Your task to perform on an android device: empty trash in google photos Image 0: 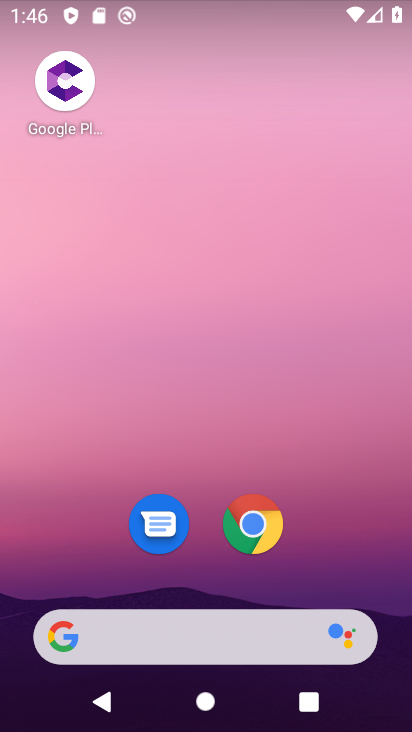
Step 0: drag from (334, 549) to (270, 15)
Your task to perform on an android device: empty trash in google photos Image 1: 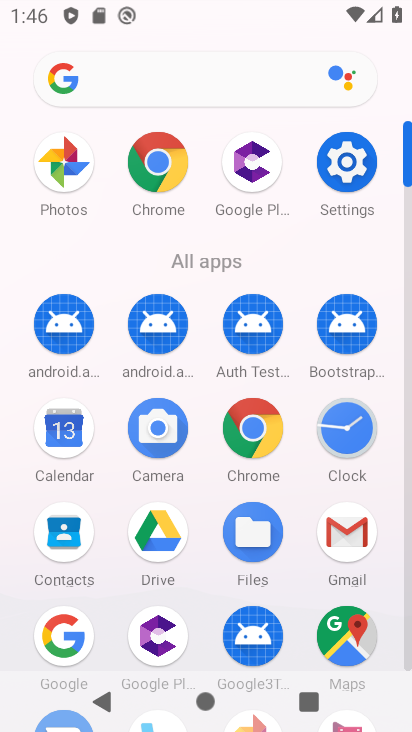
Step 1: click (80, 157)
Your task to perform on an android device: empty trash in google photos Image 2: 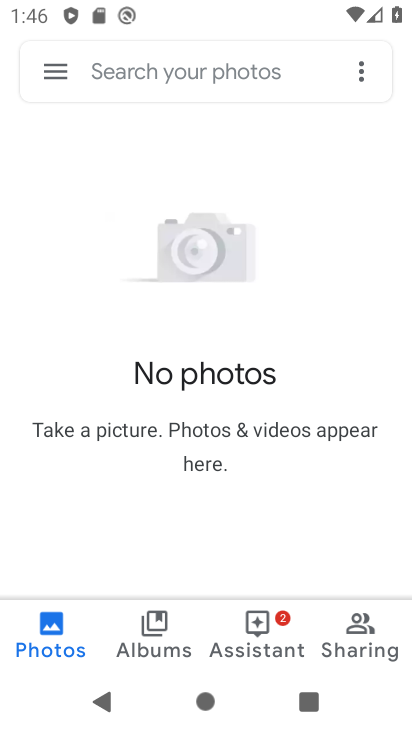
Step 2: click (51, 75)
Your task to perform on an android device: empty trash in google photos Image 3: 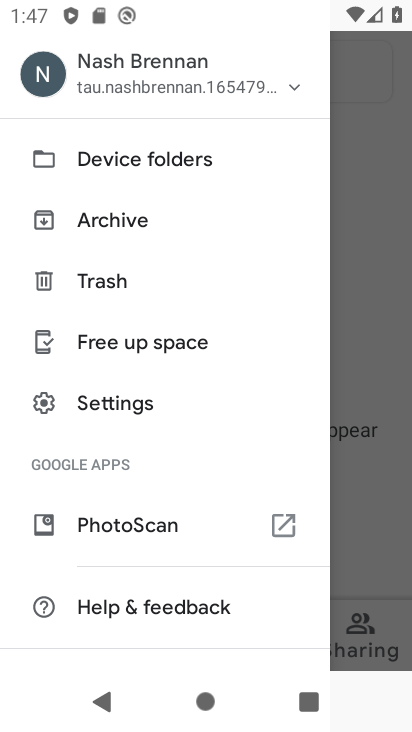
Step 3: click (98, 282)
Your task to perform on an android device: empty trash in google photos Image 4: 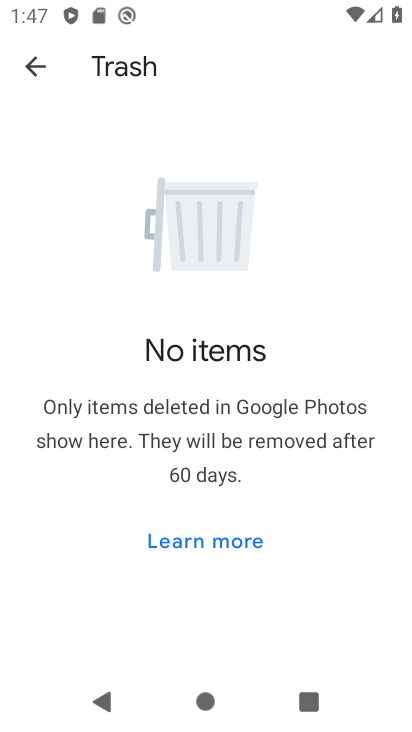
Step 4: task complete